Your task to perform on an android device: open app "The Home Depot" (install if not already installed), go to login, and select forgot password Image 0: 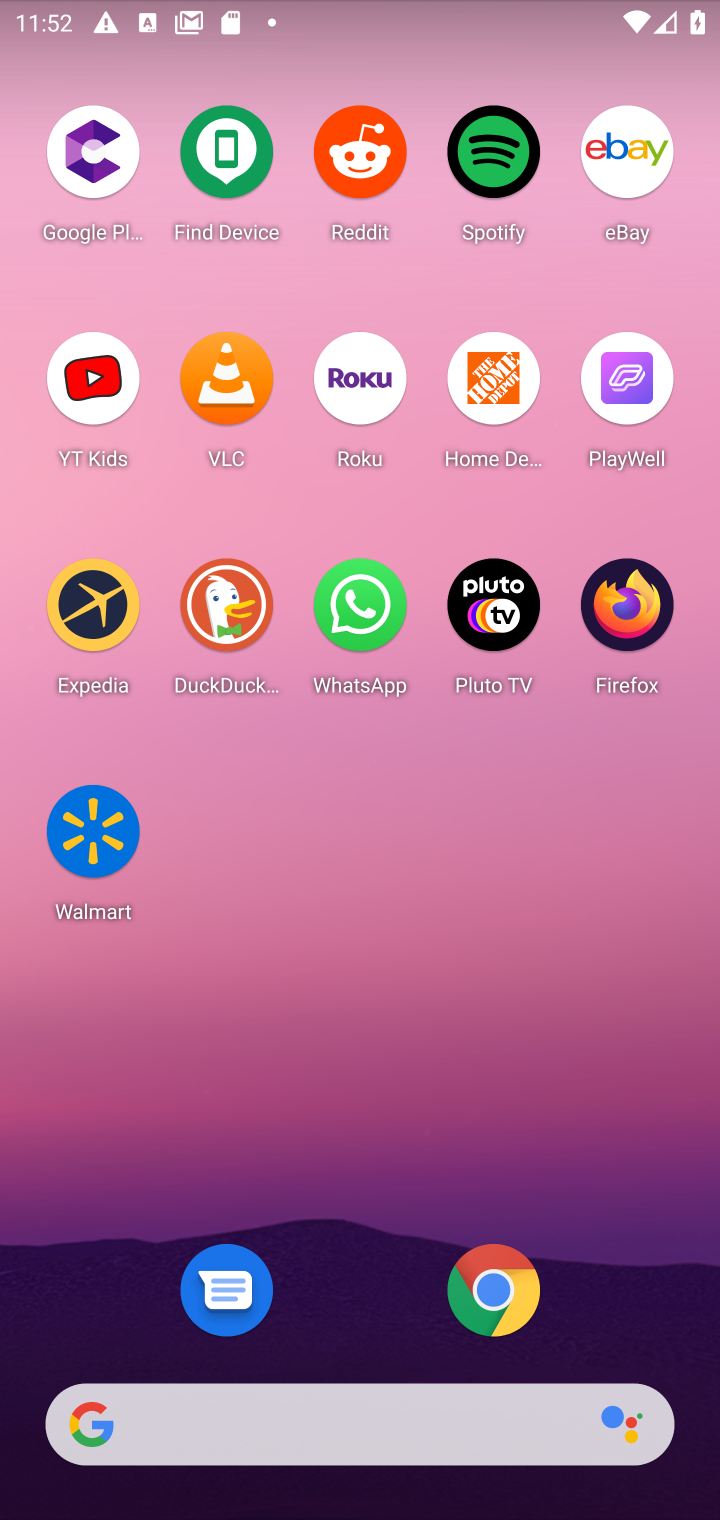
Step 0: drag from (338, 627) to (338, 75)
Your task to perform on an android device: open app "The Home Depot" (install if not already installed), go to login, and select forgot password Image 1: 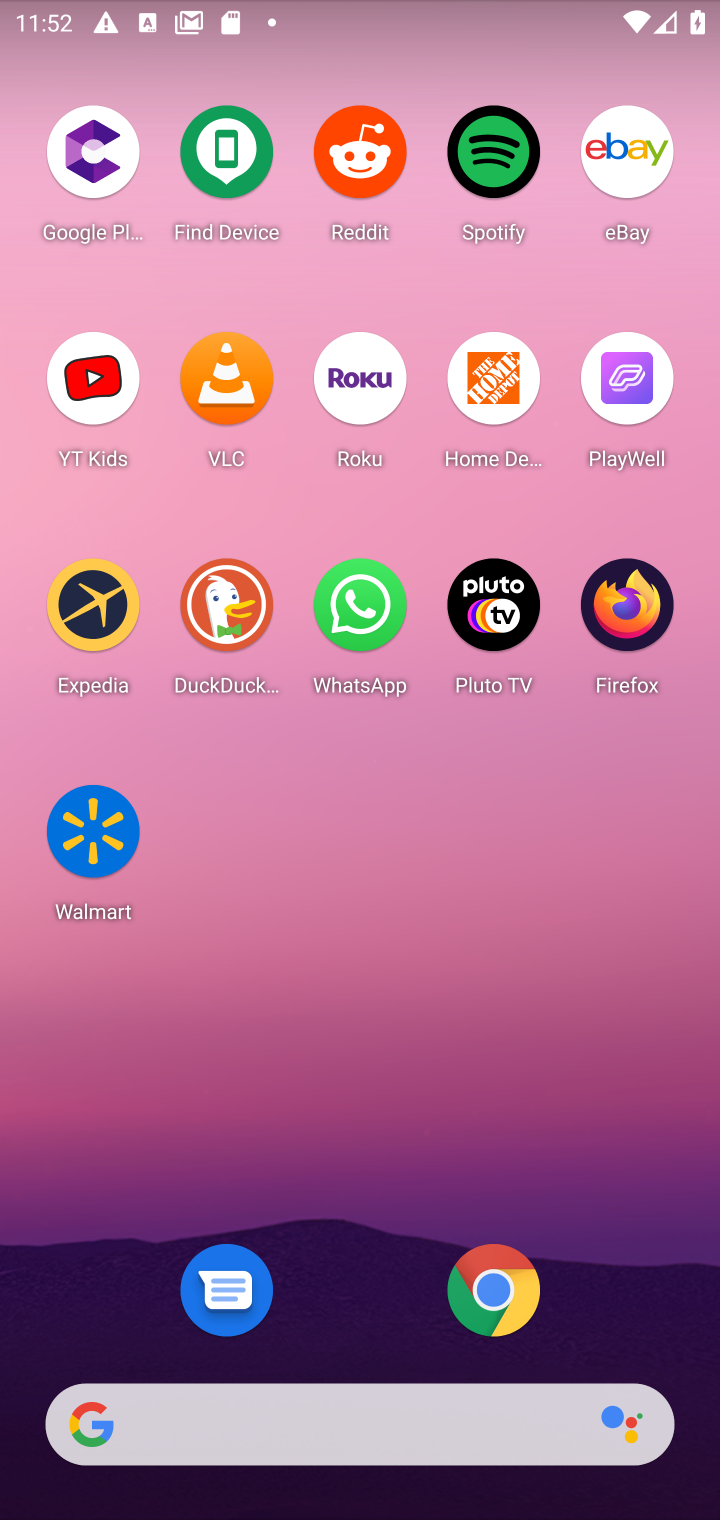
Step 1: drag from (338, 1072) to (331, 32)
Your task to perform on an android device: open app "The Home Depot" (install if not already installed), go to login, and select forgot password Image 2: 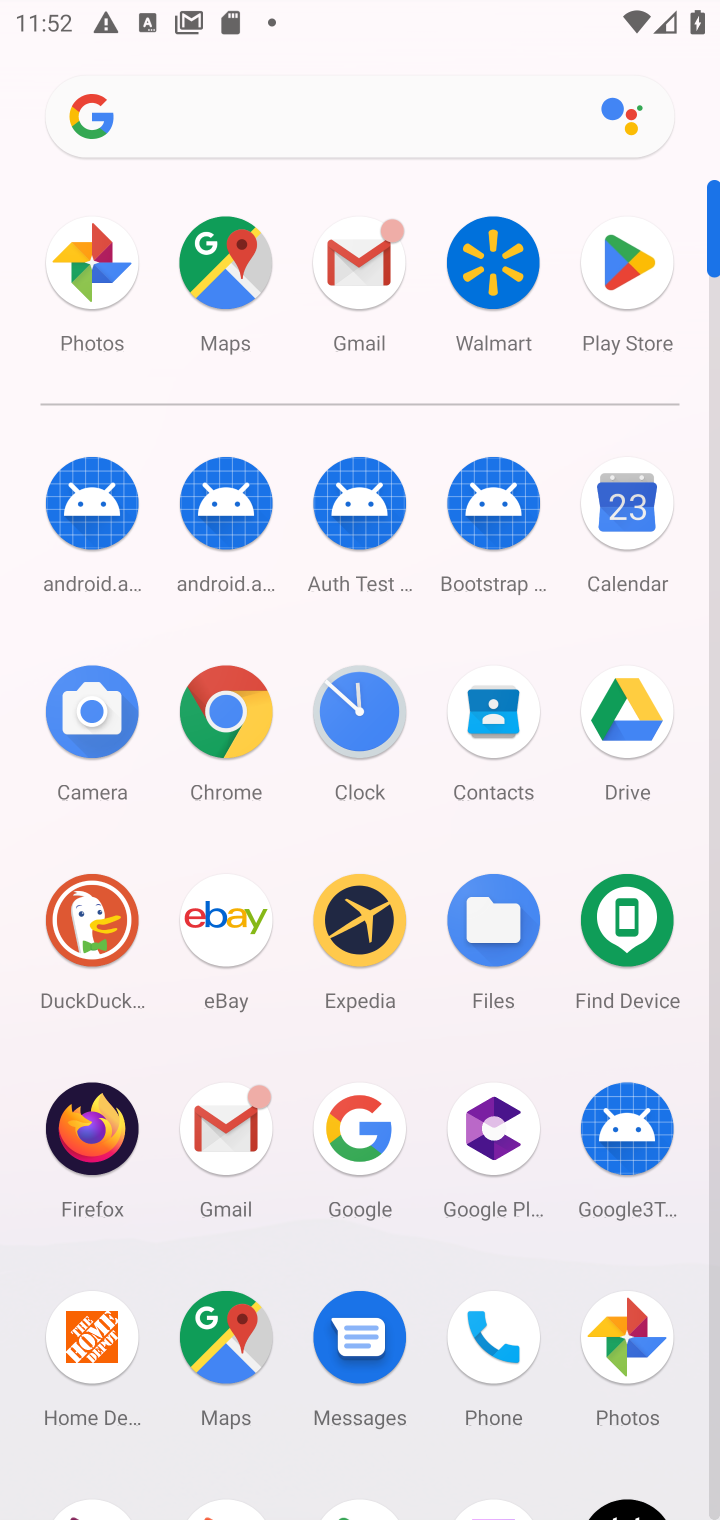
Step 2: click (626, 247)
Your task to perform on an android device: open app "The Home Depot" (install if not already installed), go to login, and select forgot password Image 3: 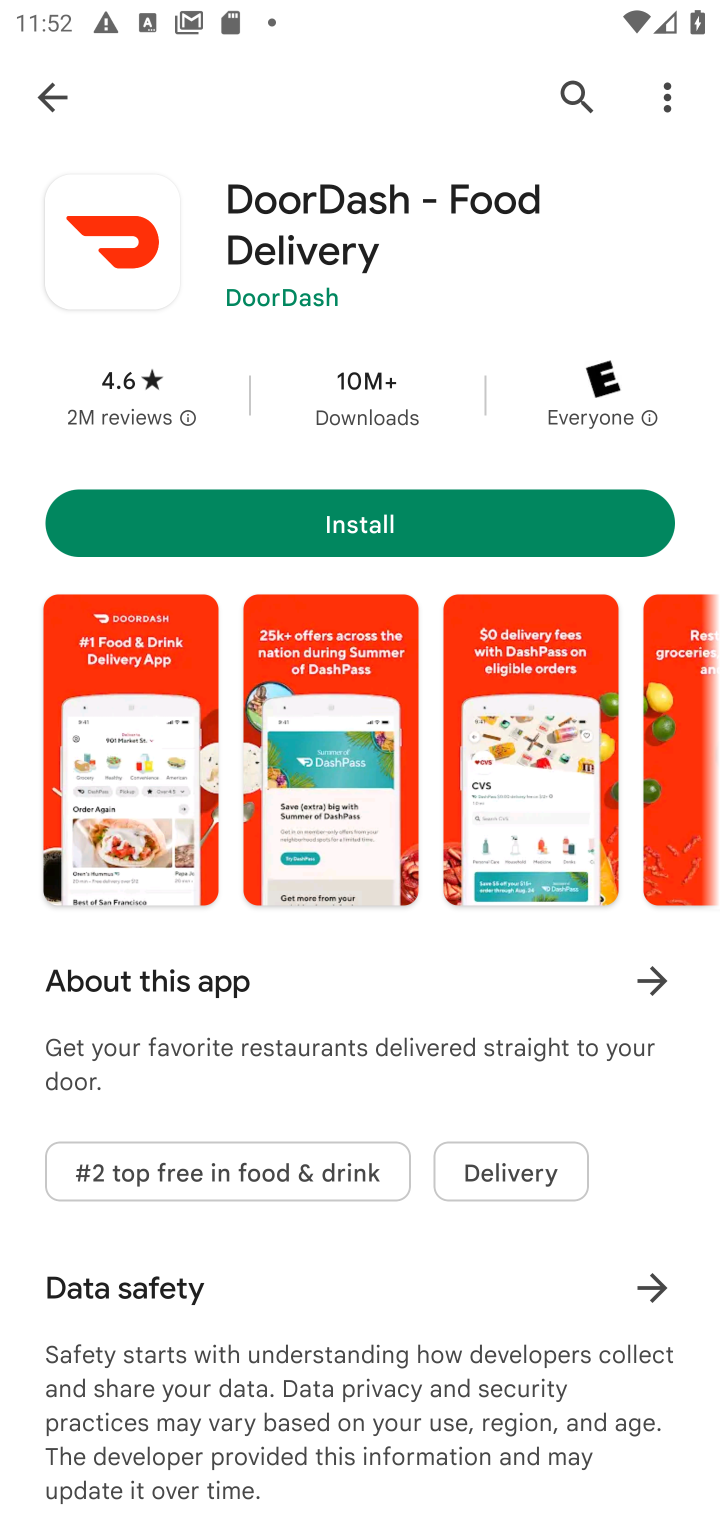
Step 3: click (566, 96)
Your task to perform on an android device: open app "The Home Depot" (install if not already installed), go to login, and select forgot password Image 4: 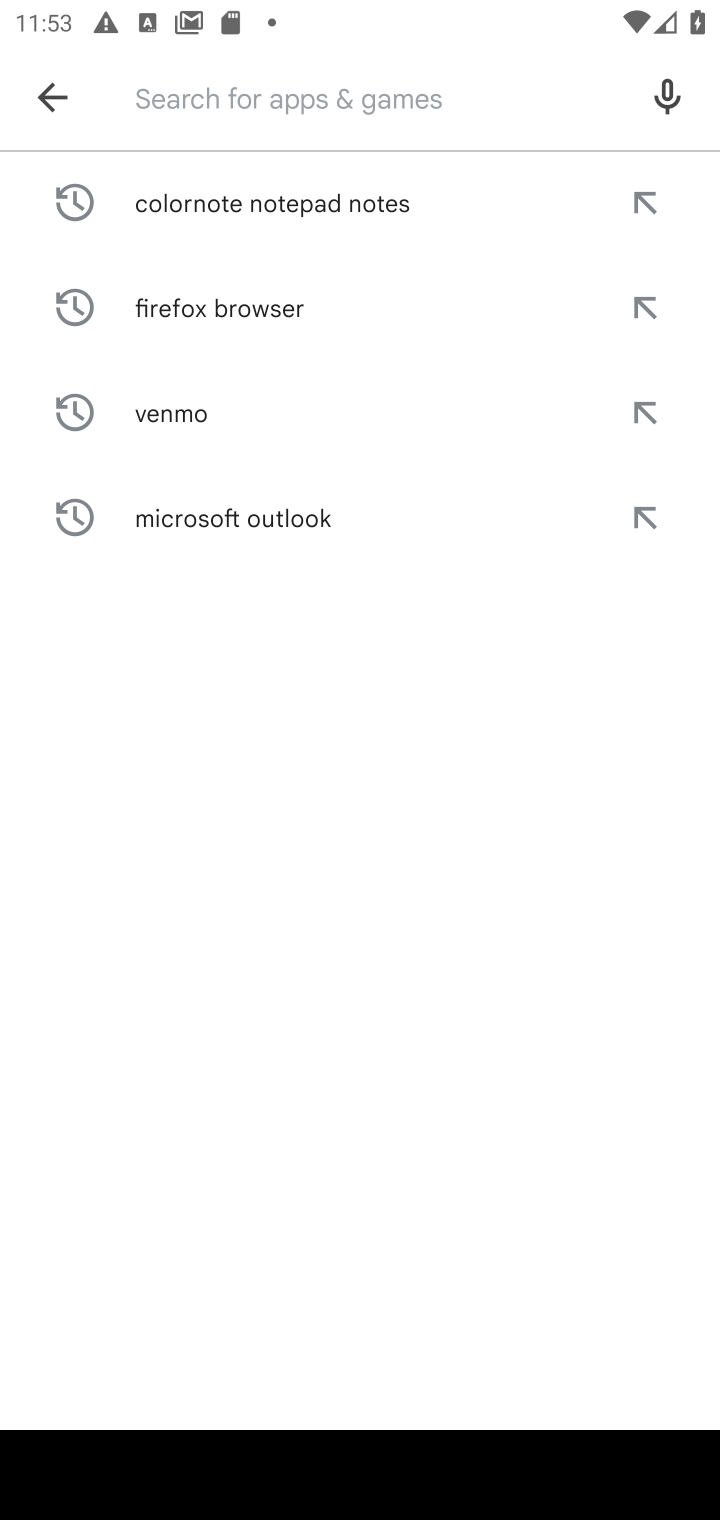
Step 4: type "The Home Depot"
Your task to perform on an android device: open app "The Home Depot" (install if not already installed), go to login, and select forgot password Image 5: 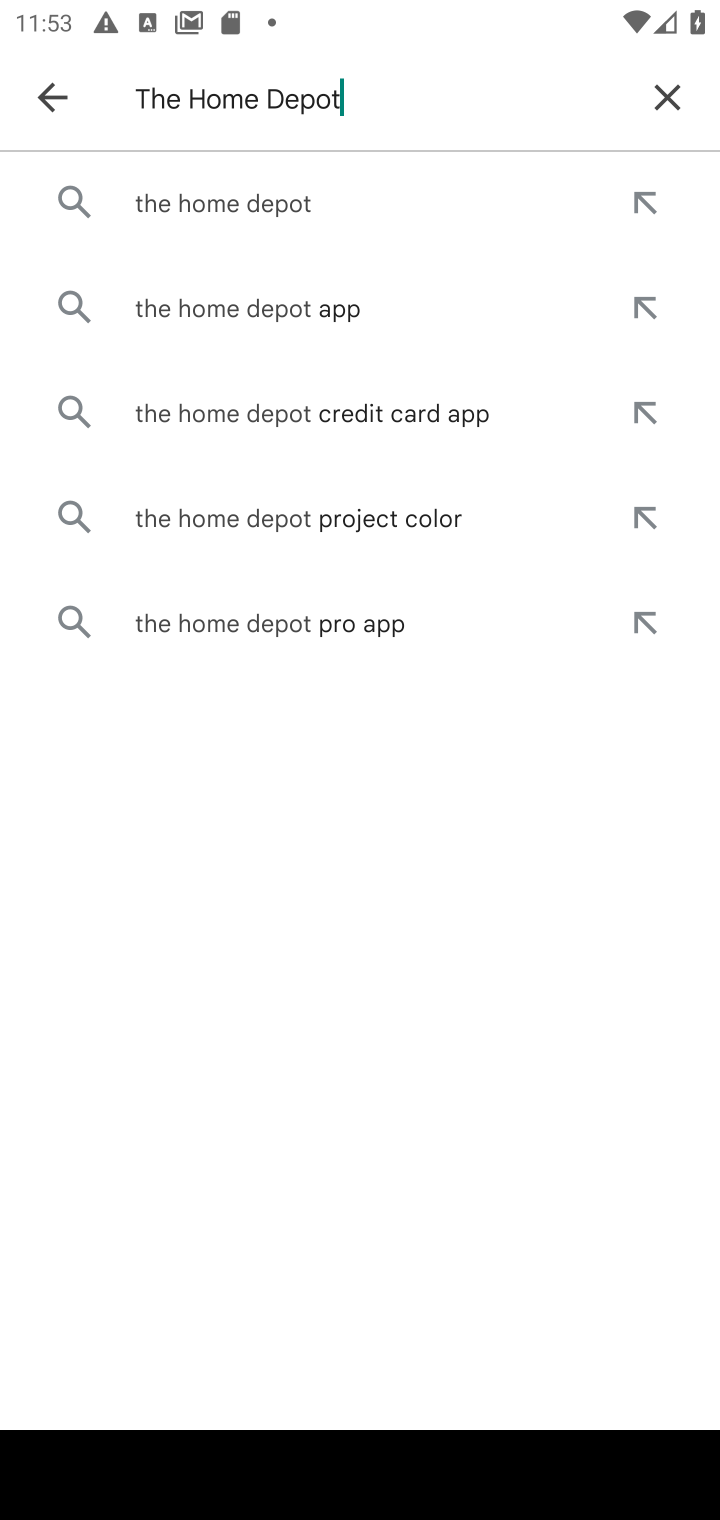
Step 5: click (206, 196)
Your task to perform on an android device: open app "The Home Depot" (install if not already installed), go to login, and select forgot password Image 6: 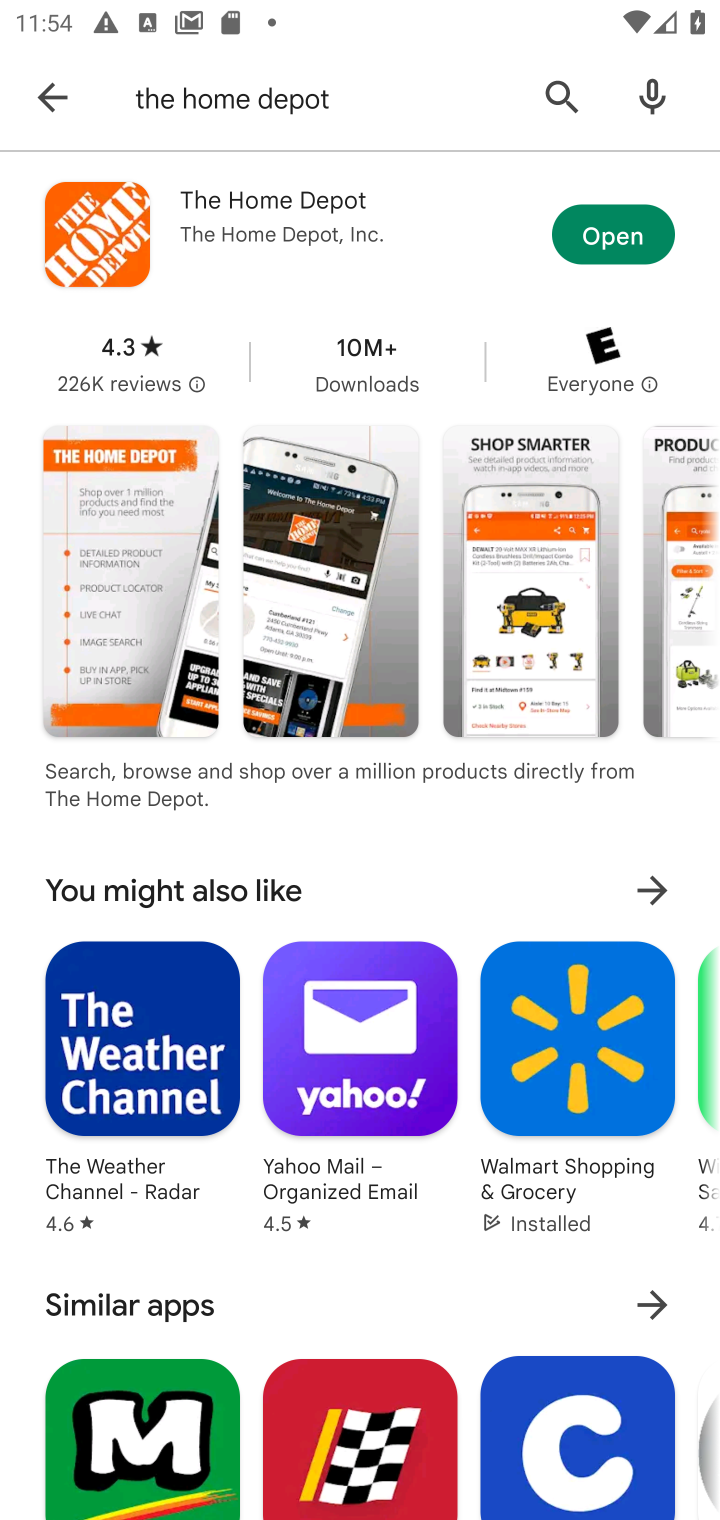
Step 6: click (607, 236)
Your task to perform on an android device: open app "The Home Depot" (install if not already installed), go to login, and select forgot password Image 7: 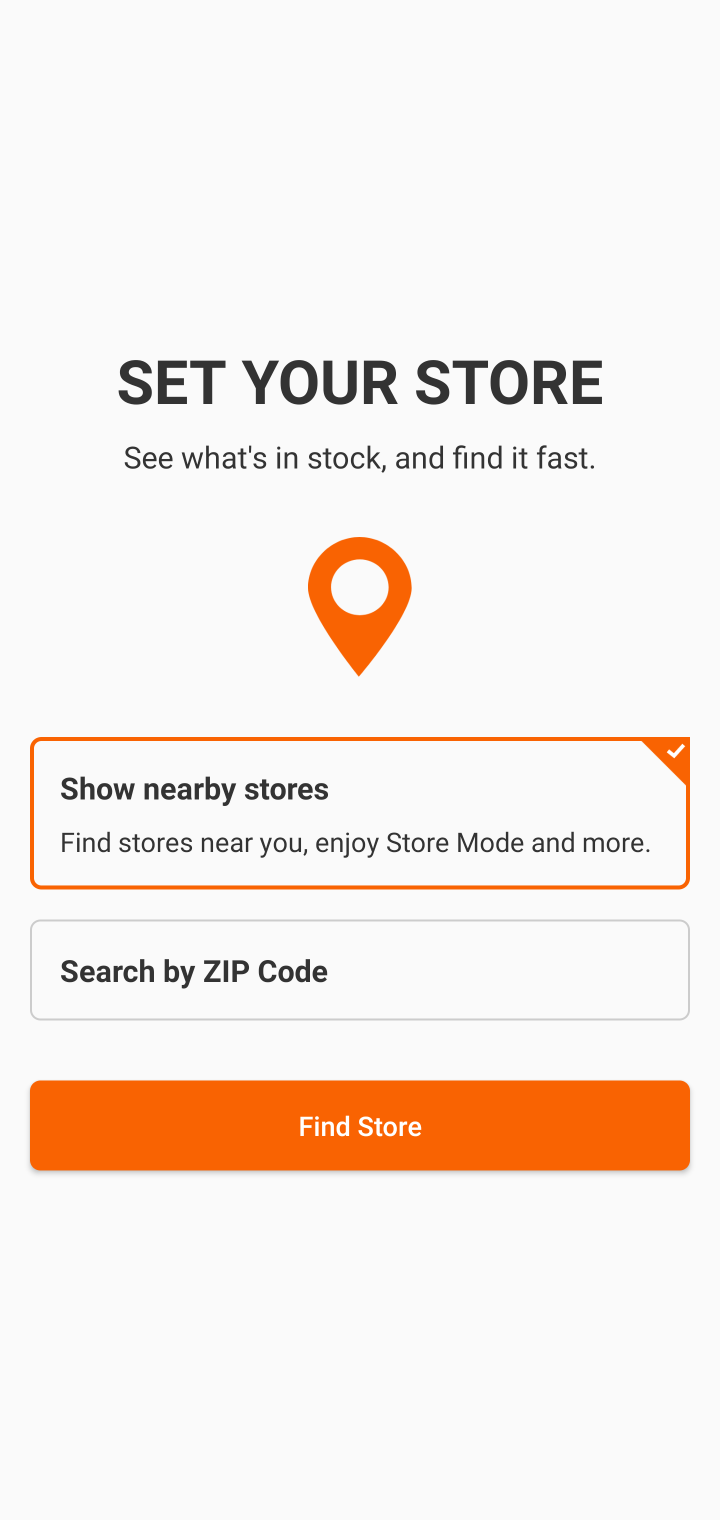
Step 7: task complete